Your task to perform on an android device: Show the shopping cart on target.com. Add dell alienware to the cart on target.com, then select checkout. Image 0: 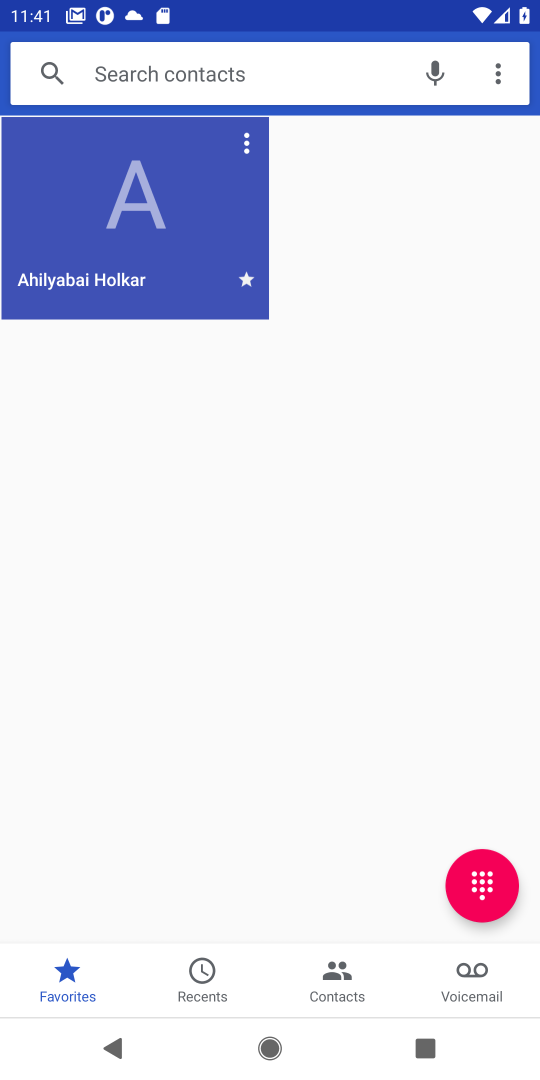
Step 0: press home button
Your task to perform on an android device: Show the shopping cart on target.com. Add dell alienware to the cart on target.com, then select checkout. Image 1: 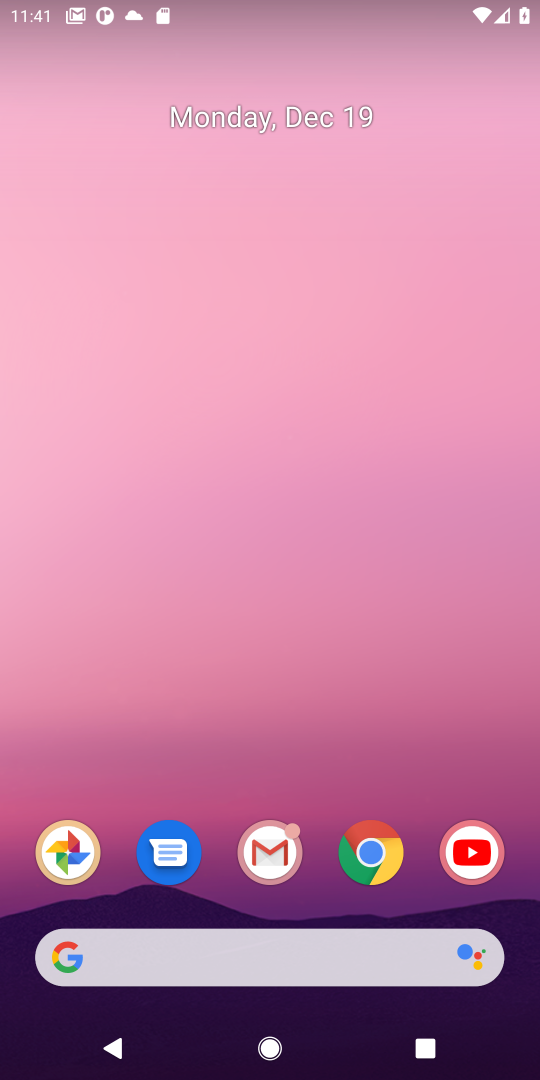
Step 1: click (372, 850)
Your task to perform on an android device: Show the shopping cart on target.com. Add dell alienware to the cart on target.com, then select checkout. Image 2: 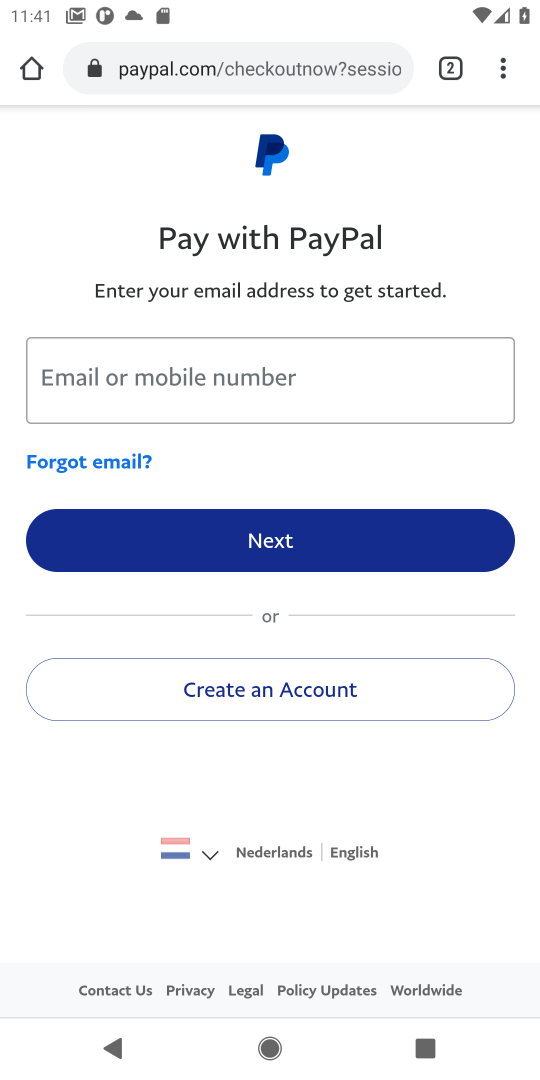
Step 2: click (203, 70)
Your task to perform on an android device: Show the shopping cart on target.com. Add dell alienware to the cart on target.com, then select checkout. Image 3: 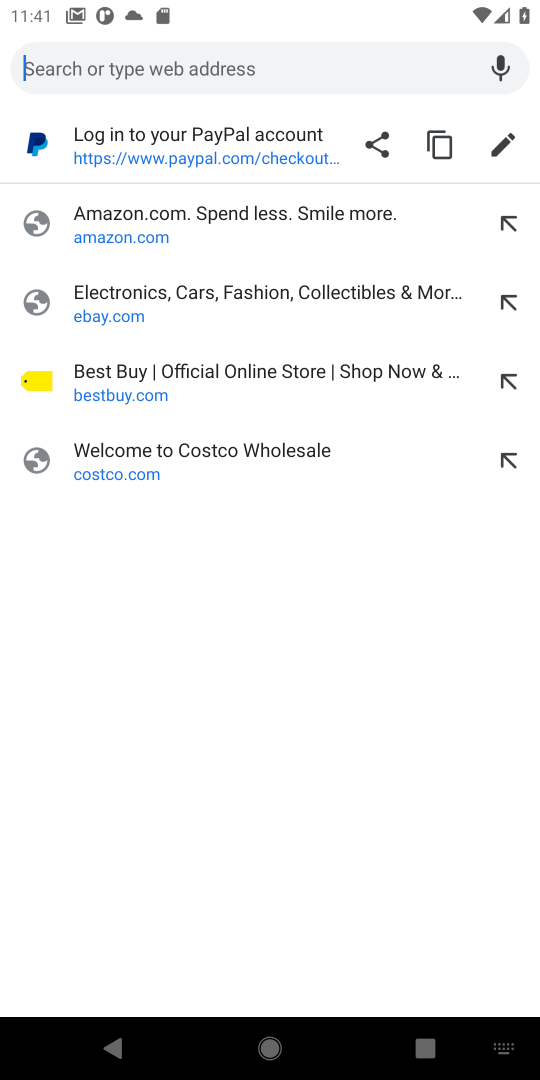
Step 3: type "target.com"
Your task to perform on an android device: Show the shopping cart on target.com. Add dell alienware to the cart on target.com, then select checkout. Image 4: 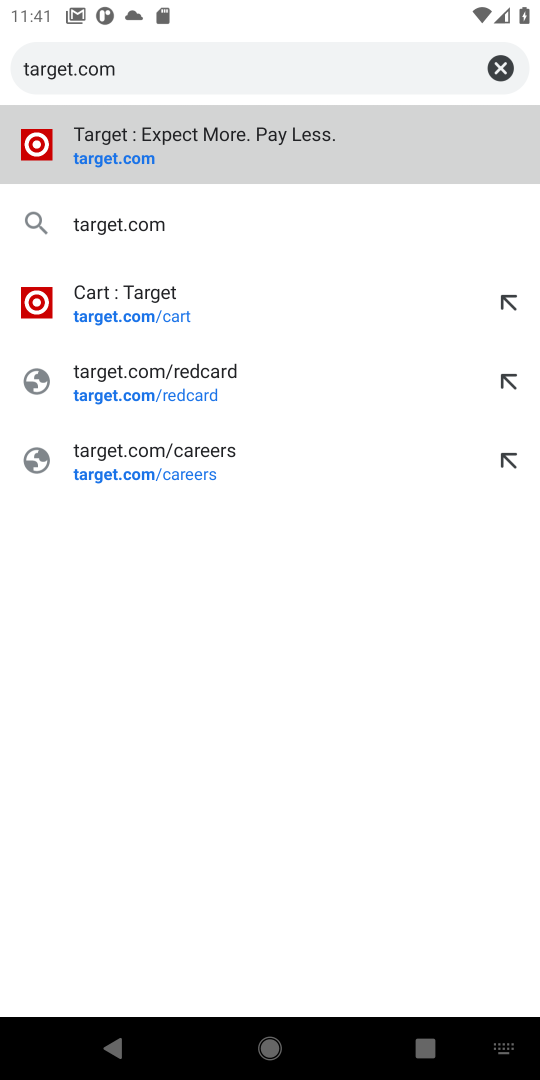
Step 4: click (115, 165)
Your task to perform on an android device: Show the shopping cart on target.com. Add dell alienware to the cart on target.com, then select checkout. Image 5: 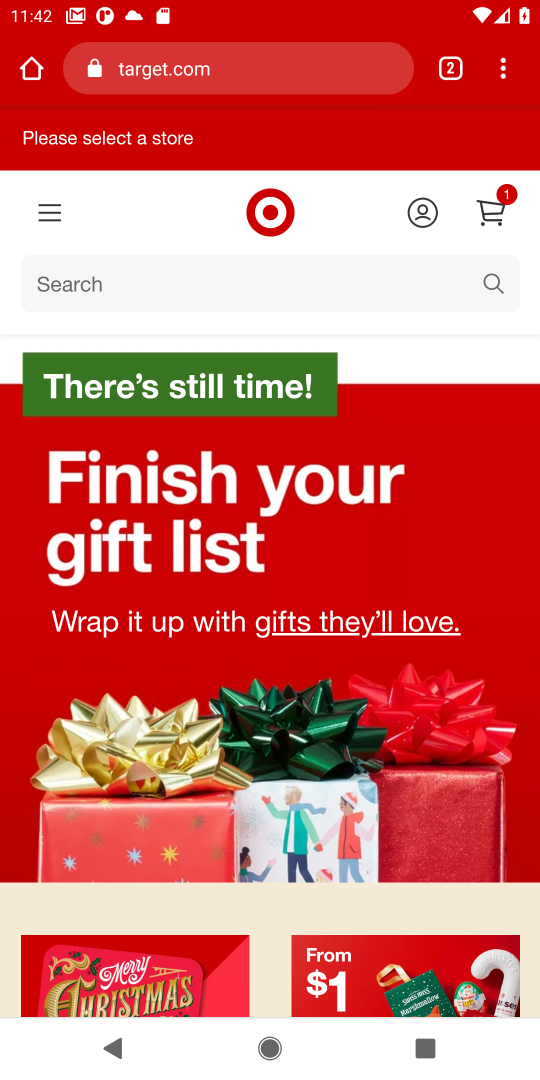
Step 5: click (492, 219)
Your task to perform on an android device: Show the shopping cart on target.com. Add dell alienware to the cart on target.com, then select checkout. Image 6: 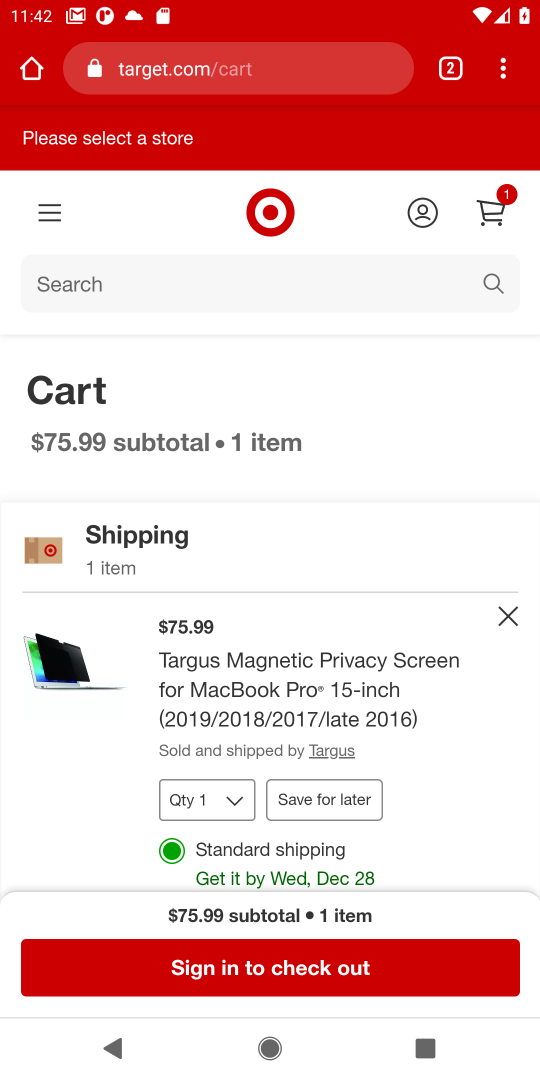
Step 6: click (55, 297)
Your task to perform on an android device: Show the shopping cart on target.com. Add dell alienware to the cart on target.com, then select checkout. Image 7: 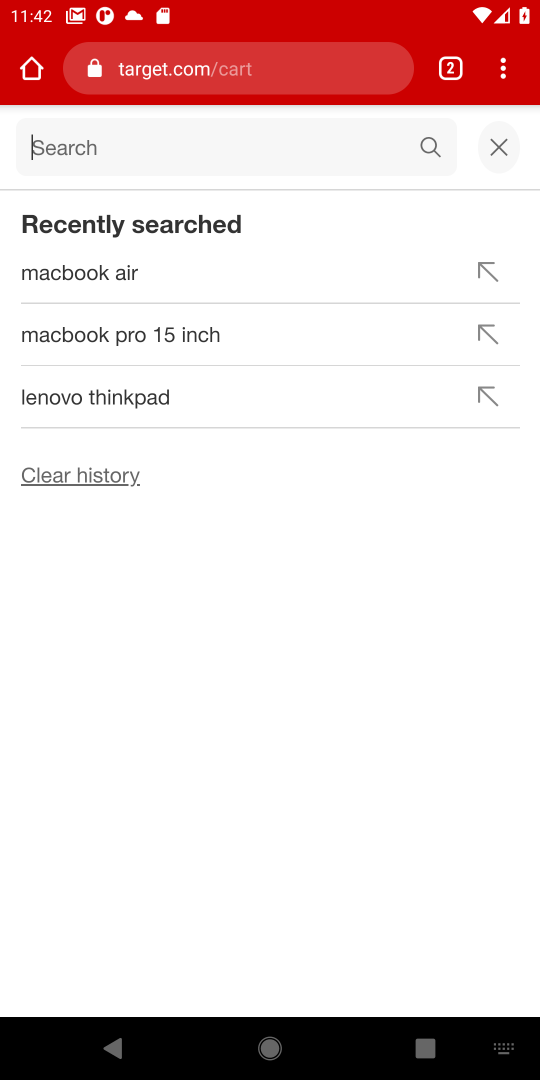
Step 7: type "dell alienware"
Your task to perform on an android device: Show the shopping cart on target.com. Add dell alienware to the cart on target.com, then select checkout. Image 8: 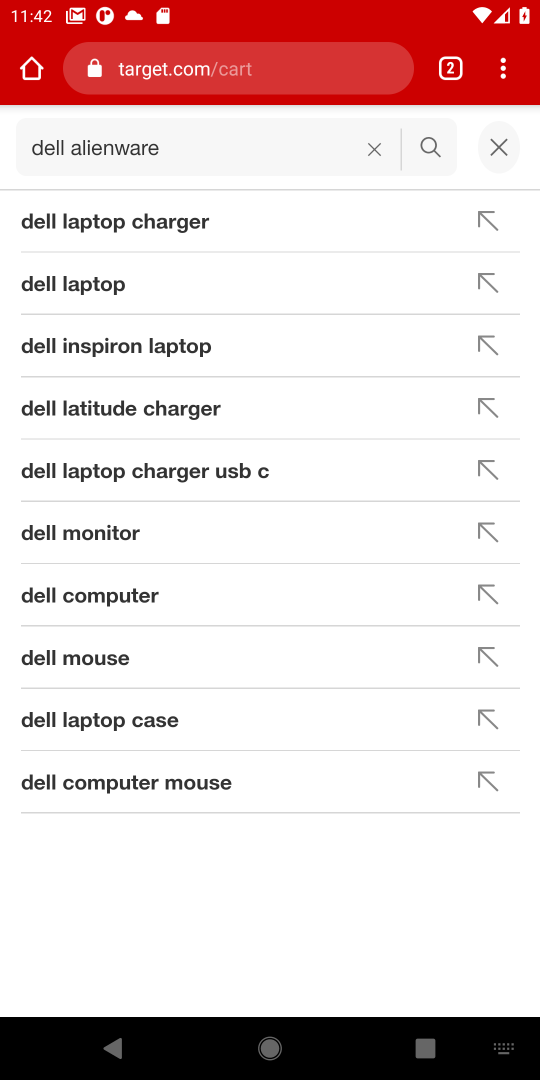
Step 8: click (435, 152)
Your task to perform on an android device: Show the shopping cart on target.com. Add dell alienware to the cart on target.com, then select checkout. Image 9: 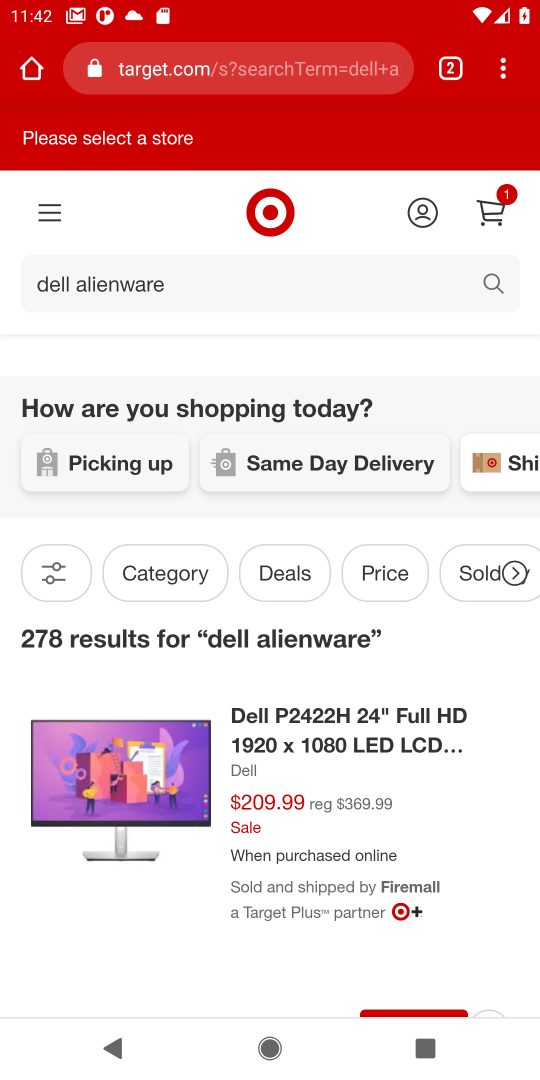
Step 9: task complete